Your task to perform on an android device: Is it going to rain tomorrow? Image 0: 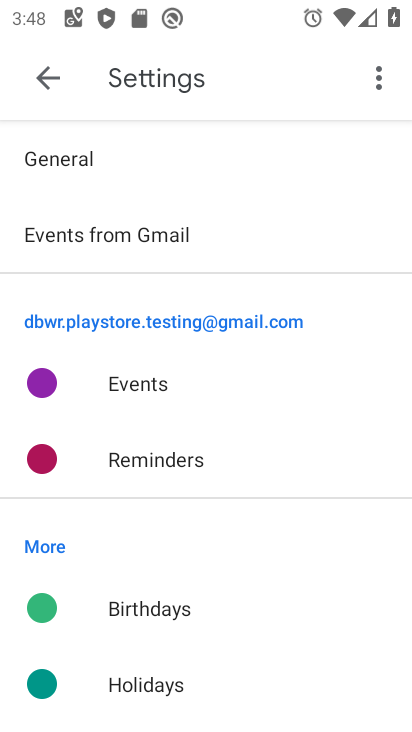
Step 0: press home button
Your task to perform on an android device: Is it going to rain tomorrow? Image 1: 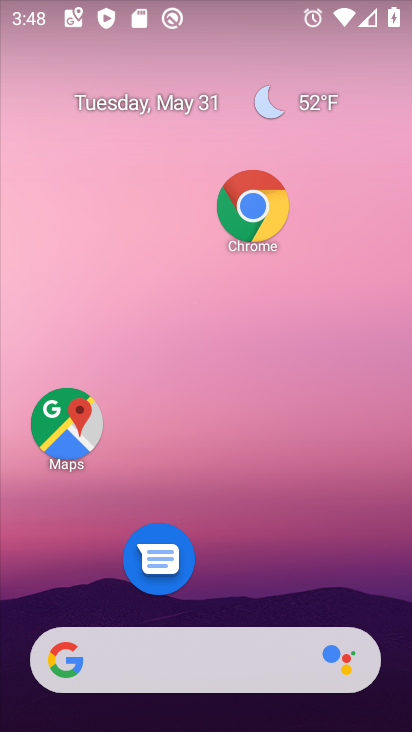
Step 1: drag from (248, 591) to (257, 89)
Your task to perform on an android device: Is it going to rain tomorrow? Image 2: 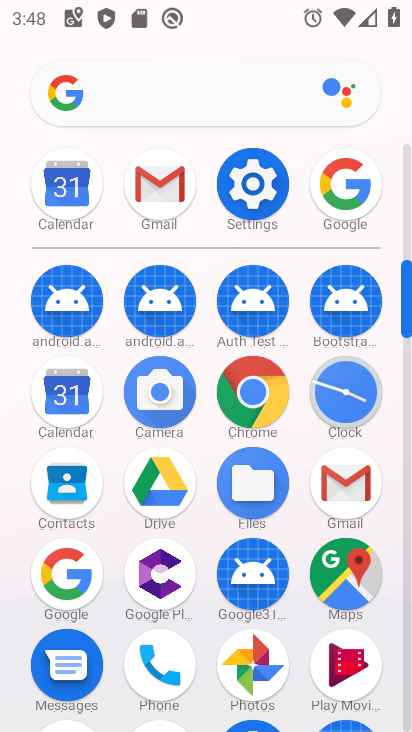
Step 2: click (342, 209)
Your task to perform on an android device: Is it going to rain tomorrow? Image 3: 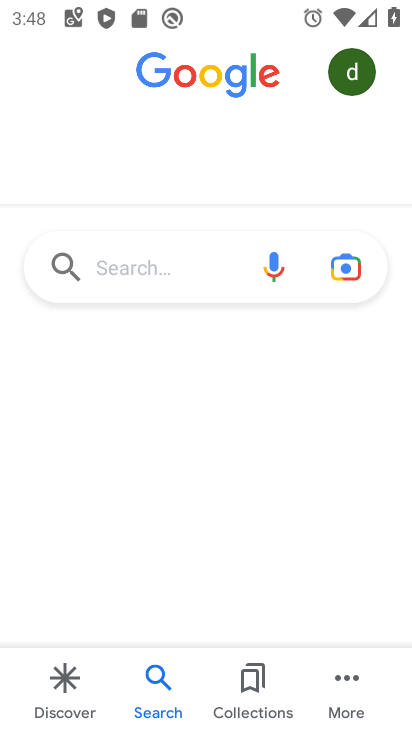
Step 3: click (144, 263)
Your task to perform on an android device: Is it going to rain tomorrow? Image 4: 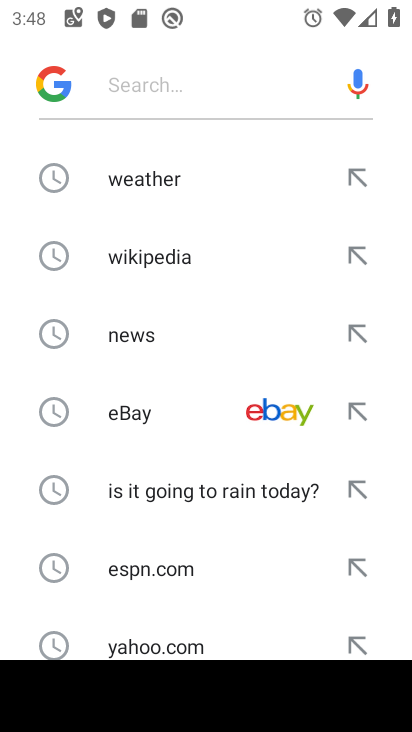
Step 4: click (162, 180)
Your task to perform on an android device: Is it going to rain tomorrow? Image 5: 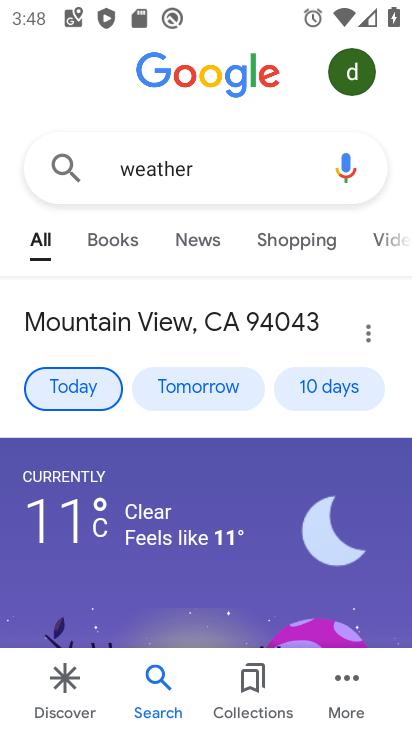
Step 5: click (203, 391)
Your task to perform on an android device: Is it going to rain tomorrow? Image 6: 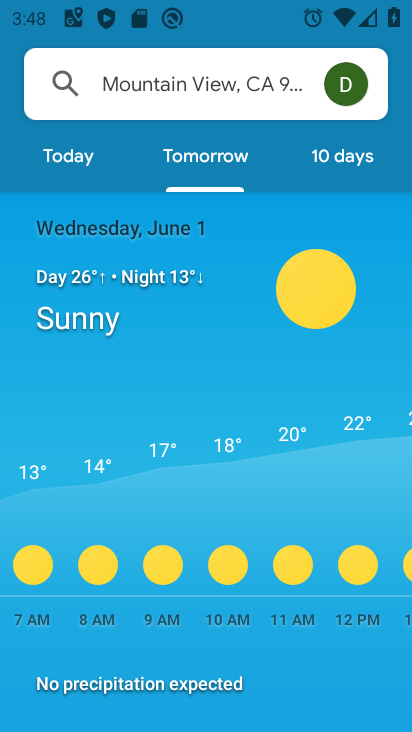
Step 6: task complete